Your task to perform on an android device: install app "Grab" Image 0: 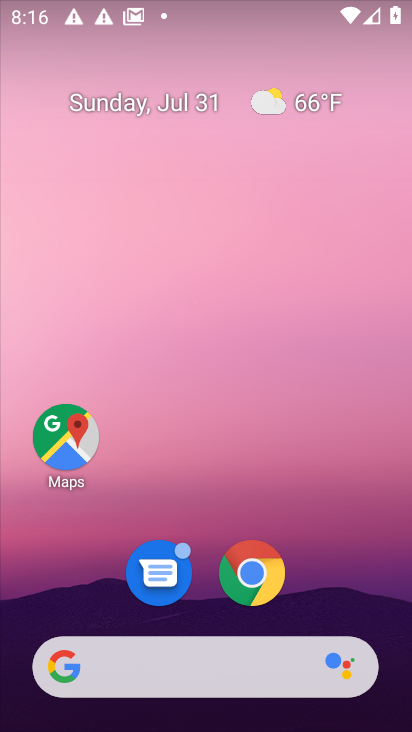
Step 0: drag from (199, 575) to (301, 10)
Your task to perform on an android device: install app "Grab" Image 1: 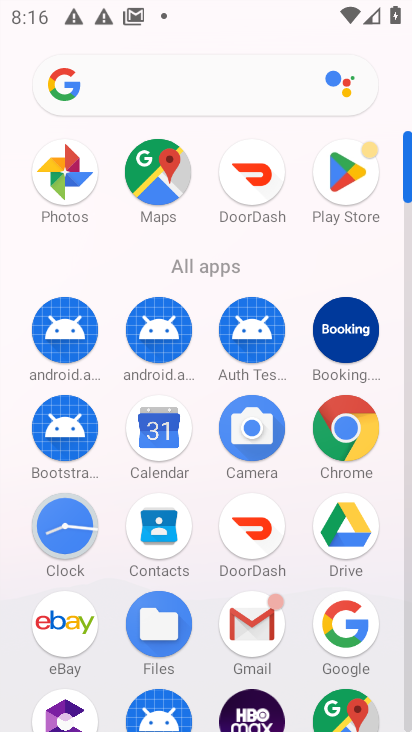
Step 1: click (339, 177)
Your task to perform on an android device: install app "Grab" Image 2: 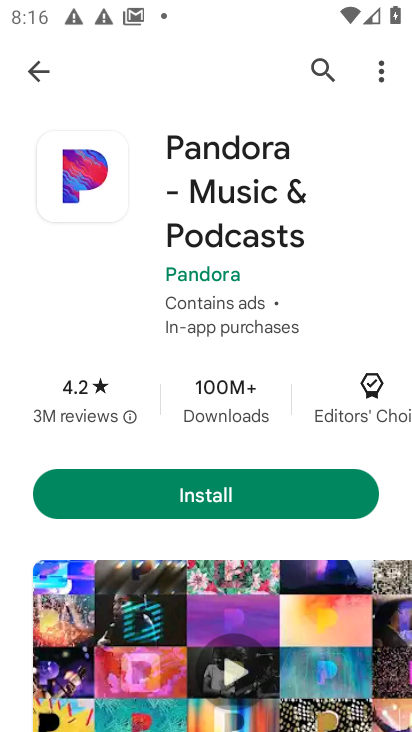
Step 2: click (22, 76)
Your task to perform on an android device: install app "Grab" Image 3: 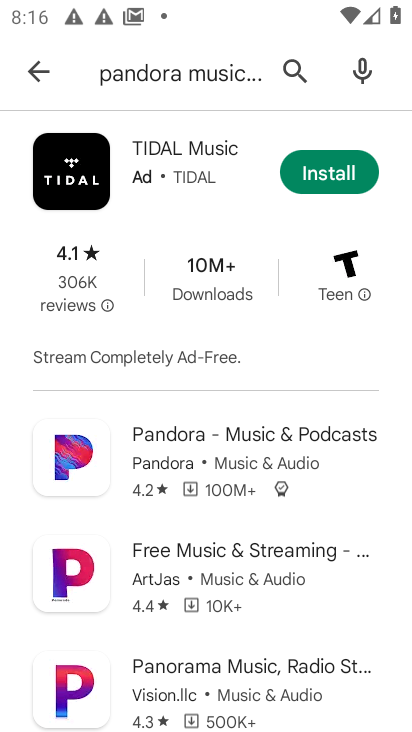
Step 3: click (206, 75)
Your task to perform on an android device: install app "Grab" Image 4: 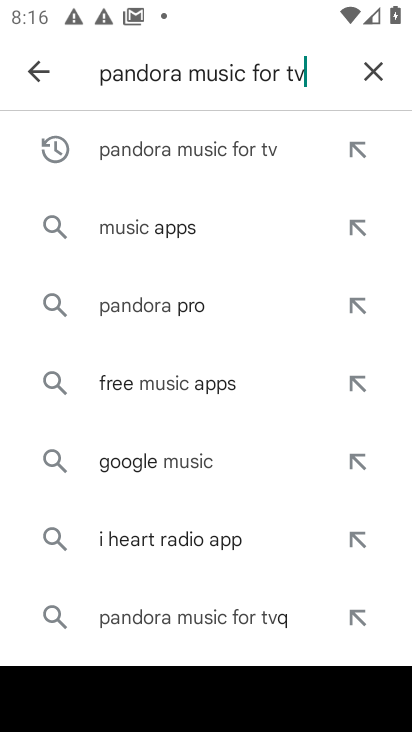
Step 4: click (365, 74)
Your task to perform on an android device: install app "Grab" Image 5: 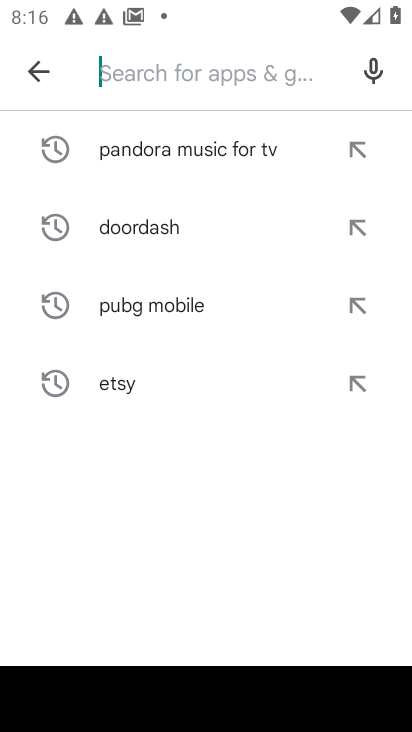
Step 5: type "grab"
Your task to perform on an android device: install app "Grab" Image 6: 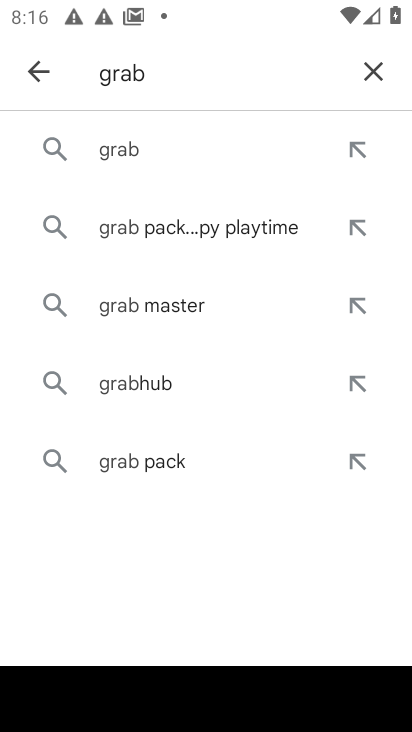
Step 6: click (147, 153)
Your task to perform on an android device: install app "Grab" Image 7: 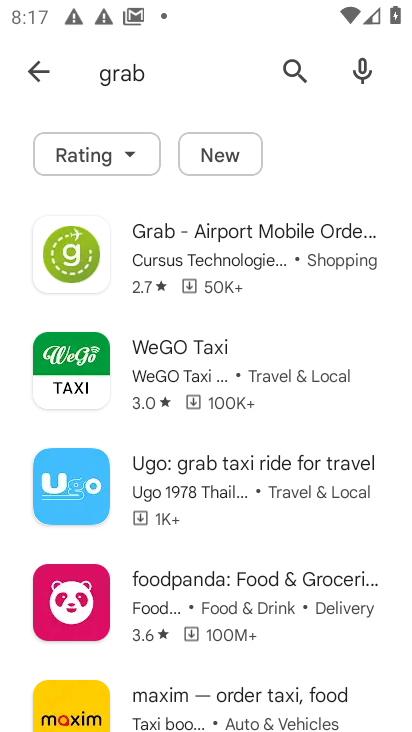
Step 7: click (206, 269)
Your task to perform on an android device: install app "Grab" Image 8: 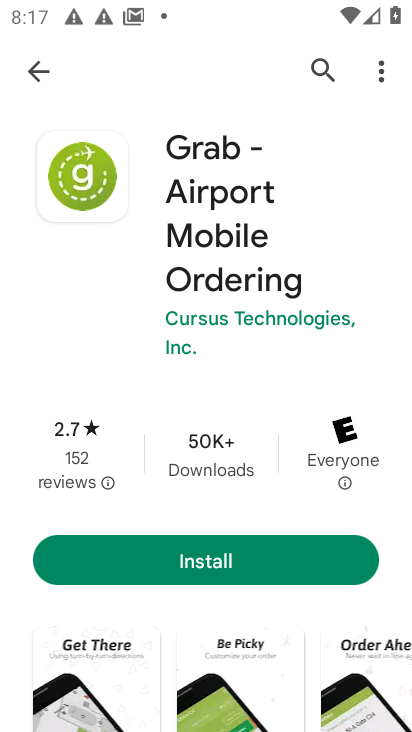
Step 8: click (227, 558)
Your task to perform on an android device: install app "Grab" Image 9: 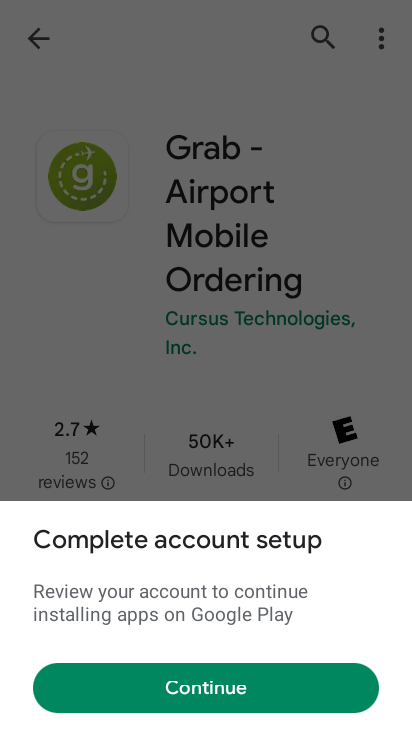
Step 9: click (179, 674)
Your task to perform on an android device: install app "Grab" Image 10: 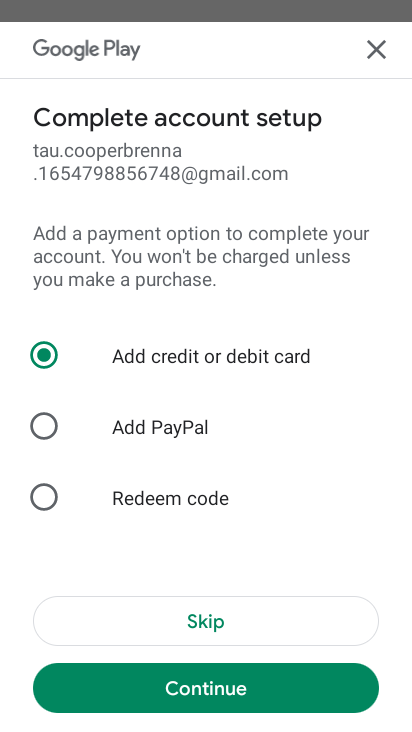
Step 10: click (189, 614)
Your task to perform on an android device: install app "Grab" Image 11: 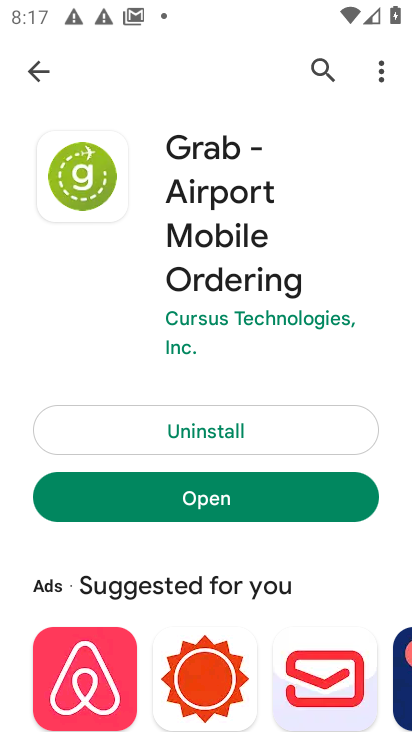
Step 11: task complete